Your task to perform on an android device: visit the assistant section in the google photos Image 0: 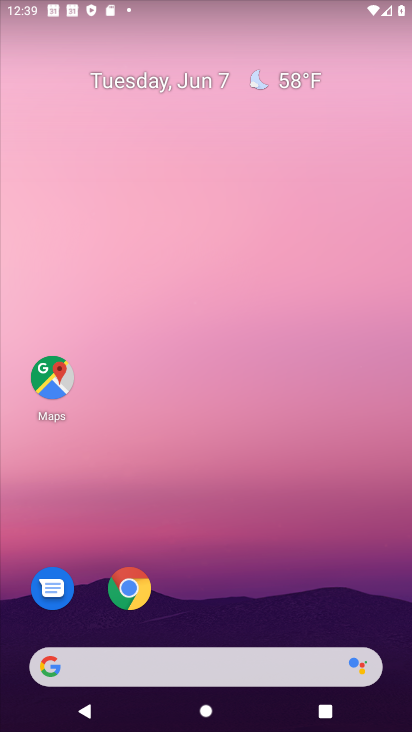
Step 0: drag from (294, 604) to (281, 39)
Your task to perform on an android device: visit the assistant section in the google photos Image 1: 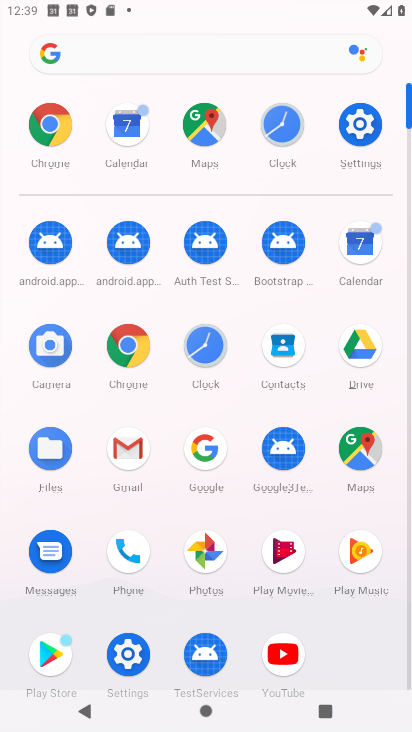
Step 1: click (209, 568)
Your task to perform on an android device: visit the assistant section in the google photos Image 2: 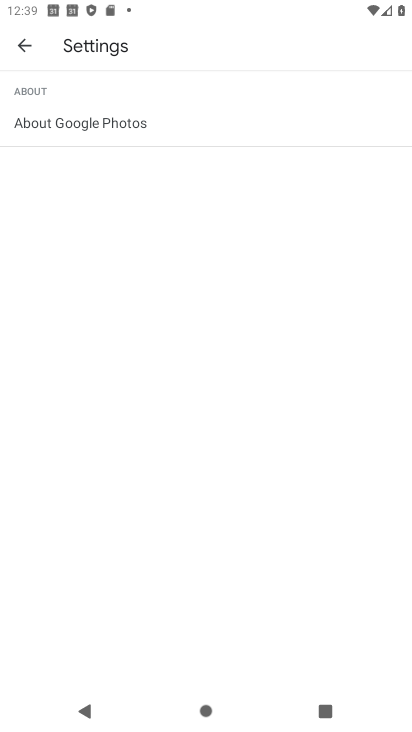
Step 2: task complete